Your task to perform on an android device: turn on notifications settings in the gmail app Image 0: 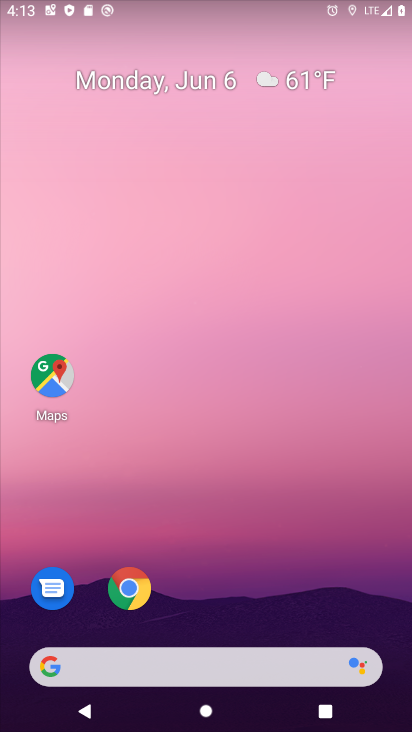
Step 0: click (43, 372)
Your task to perform on an android device: turn on notifications settings in the gmail app Image 1: 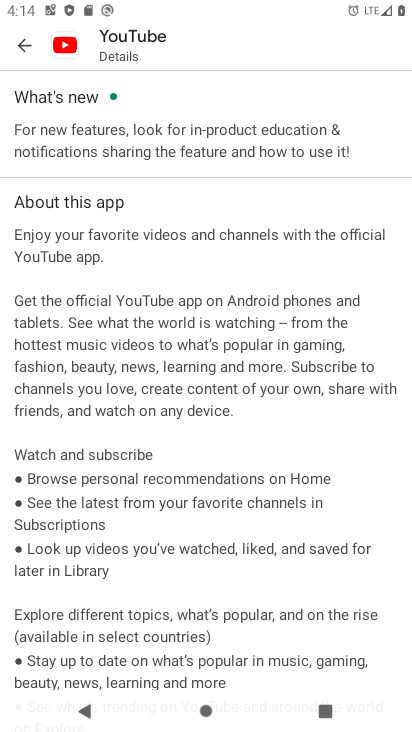
Step 1: press back button
Your task to perform on an android device: turn on notifications settings in the gmail app Image 2: 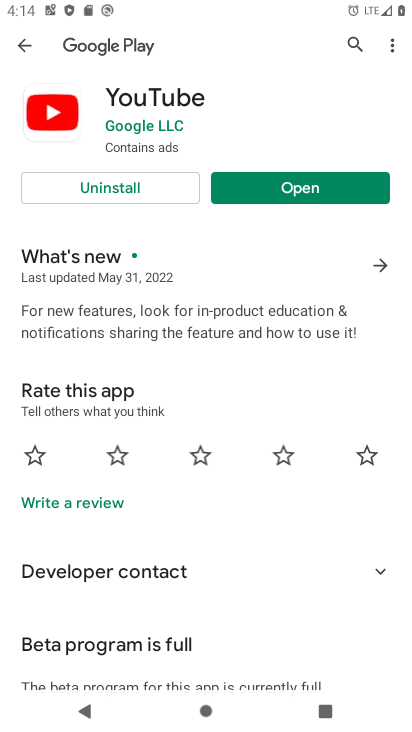
Step 2: press home button
Your task to perform on an android device: turn on notifications settings in the gmail app Image 3: 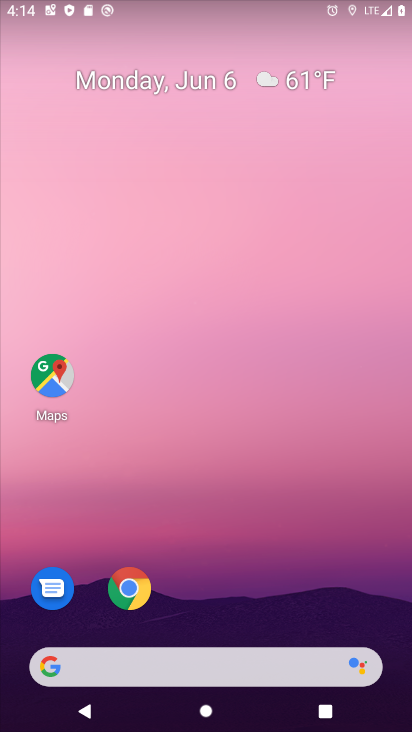
Step 3: drag from (251, 612) to (146, 202)
Your task to perform on an android device: turn on notifications settings in the gmail app Image 4: 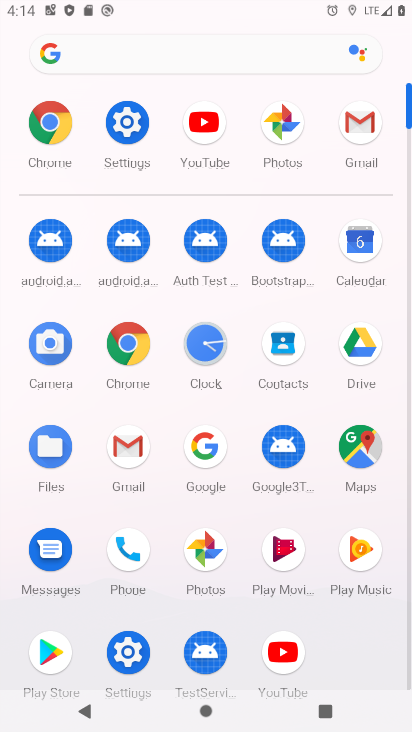
Step 4: click (349, 141)
Your task to perform on an android device: turn on notifications settings in the gmail app Image 5: 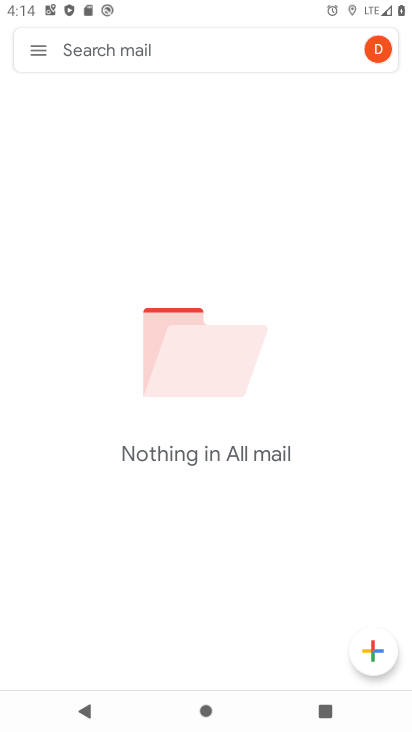
Step 5: click (44, 50)
Your task to perform on an android device: turn on notifications settings in the gmail app Image 6: 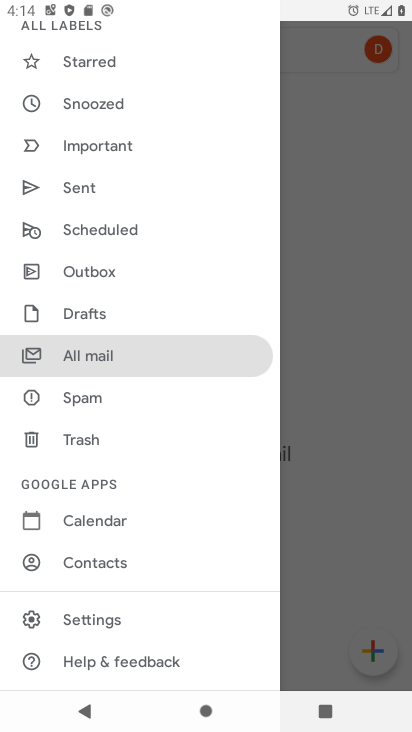
Step 6: click (179, 629)
Your task to perform on an android device: turn on notifications settings in the gmail app Image 7: 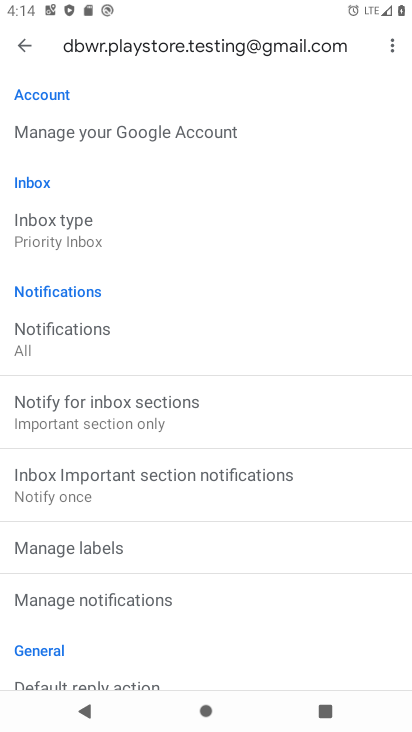
Step 7: drag from (186, 641) to (152, 277)
Your task to perform on an android device: turn on notifications settings in the gmail app Image 8: 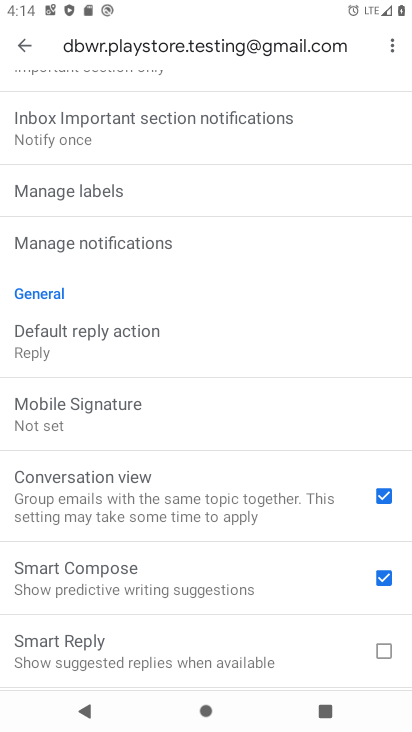
Step 8: drag from (176, 496) to (150, 550)
Your task to perform on an android device: turn on notifications settings in the gmail app Image 9: 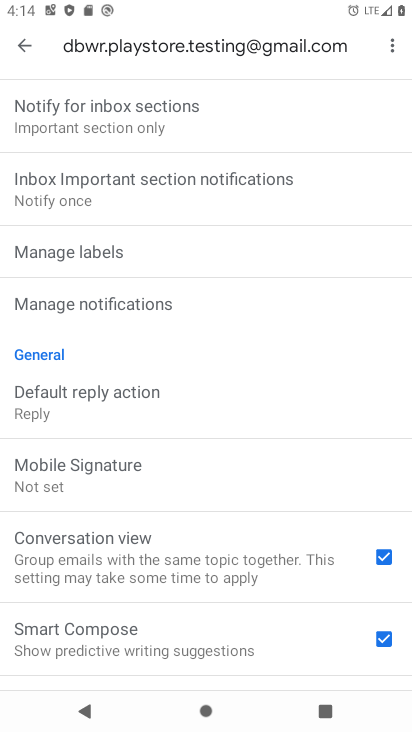
Step 9: click (126, 296)
Your task to perform on an android device: turn on notifications settings in the gmail app Image 10: 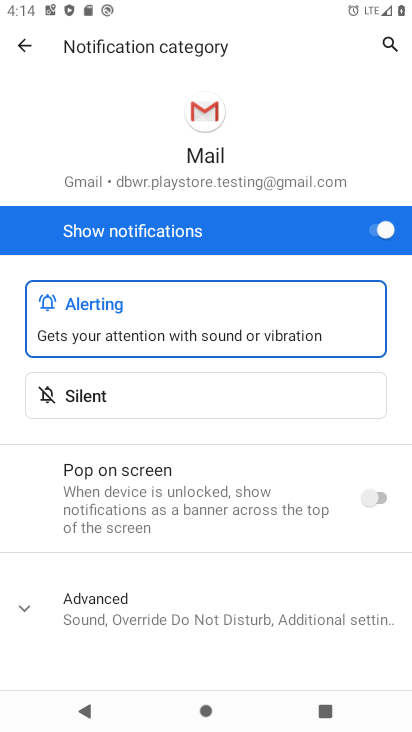
Step 10: click (365, 501)
Your task to perform on an android device: turn on notifications settings in the gmail app Image 11: 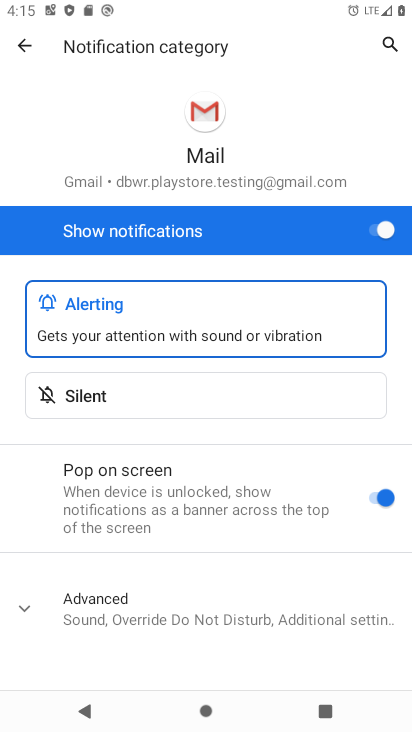
Step 11: task complete